Your task to perform on an android device: Turn off the flashlight Image 0: 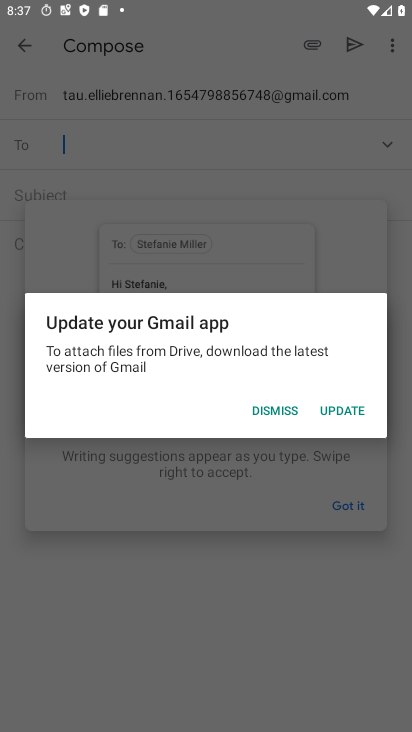
Step 0: press home button
Your task to perform on an android device: Turn off the flashlight Image 1: 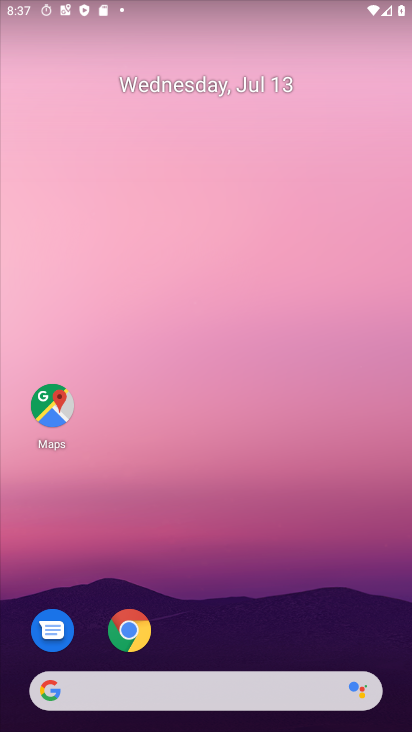
Step 1: drag from (167, 637) to (229, 241)
Your task to perform on an android device: Turn off the flashlight Image 2: 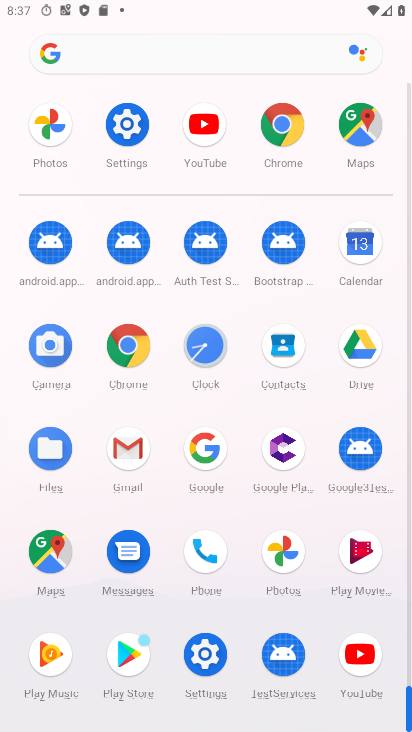
Step 2: click (201, 651)
Your task to perform on an android device: Turn off the flashlight Image 3: 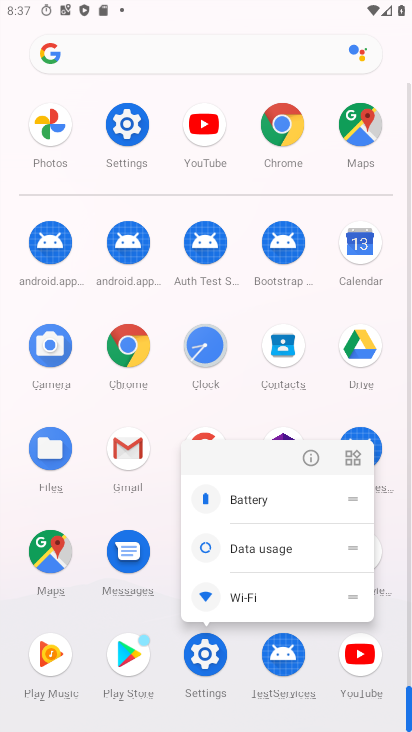
Step 3: click (307, 456)
Your task to perform on an android device: Turn off the flashlight Image 4: 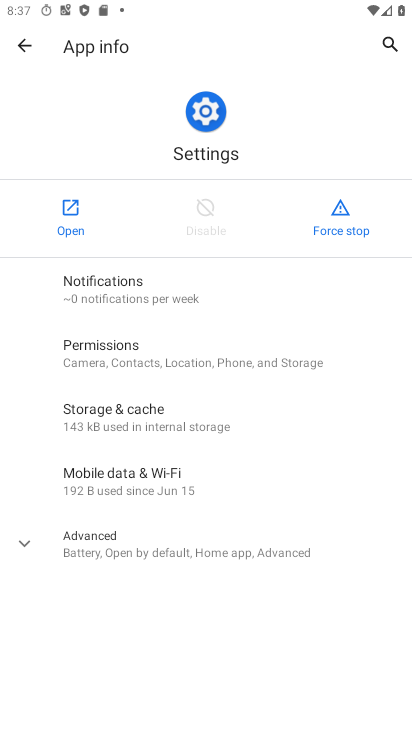
Step 4: click (61, 235)
Your task to perform on an android device: Turn off the flashlight Image 5: 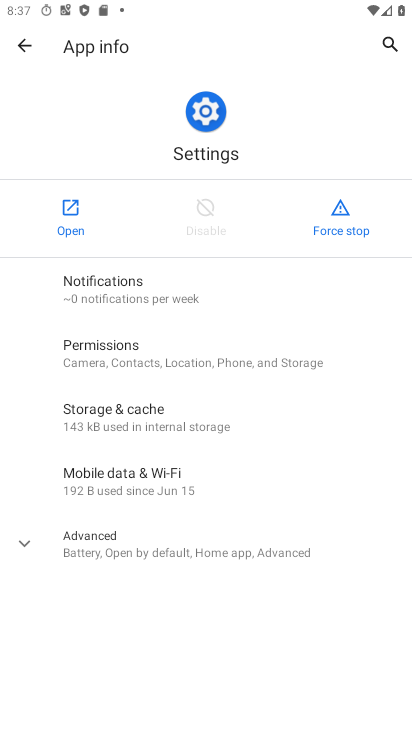
Step 5: click (61, 235)
Your task to perform on an android device: Turn off the flashlight Image 6: 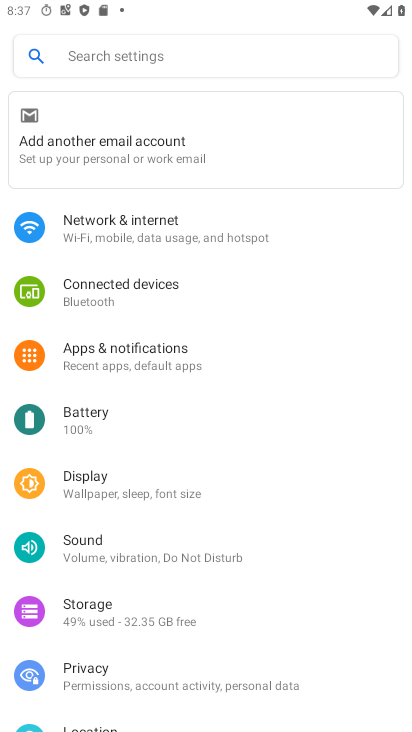
Step 6: click (196, 69)
Your task to perform on an android device: Turn off the flashlight Image 7: 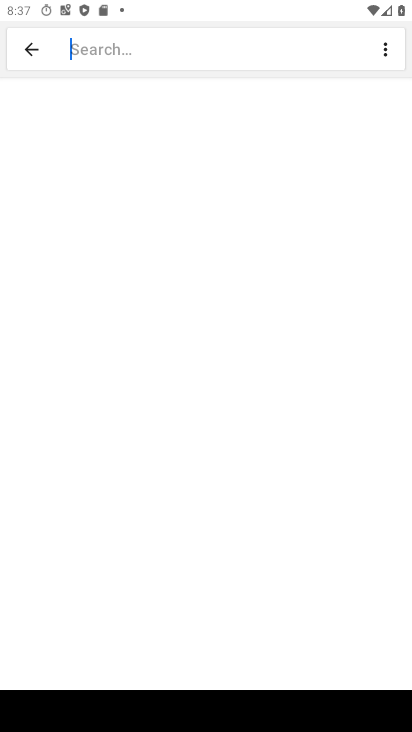
Step 7: type "flashlight"
Your task to perform on an android device: Turn off the flashlight Image 8: 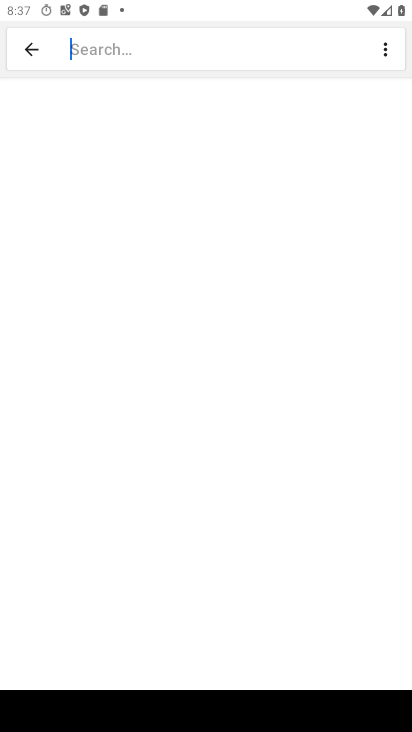
Step 8: click (201, 232)
Your task to perform on an android device: Turn off the flashlight Image 9: 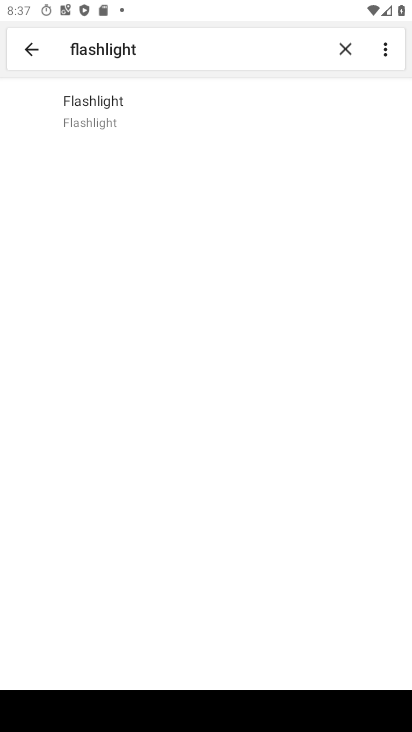
Step 9: click (136, 188)
Your task to perform on an android device: Turn off the flashlight Image 10: 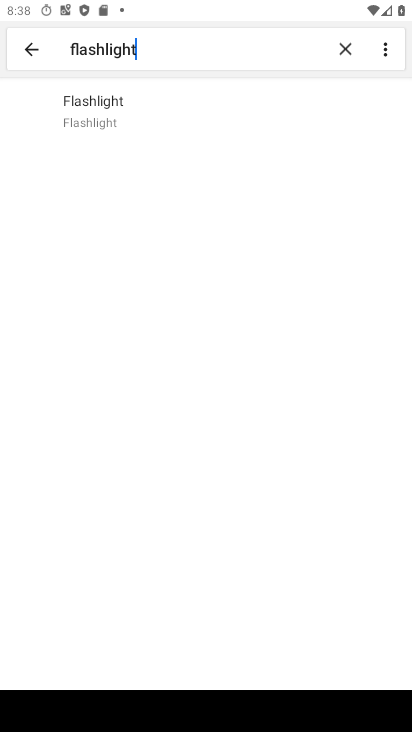
Step 10: click (216, 94)
Your task to perform on an android device: Turn off the flashlight Image 11: 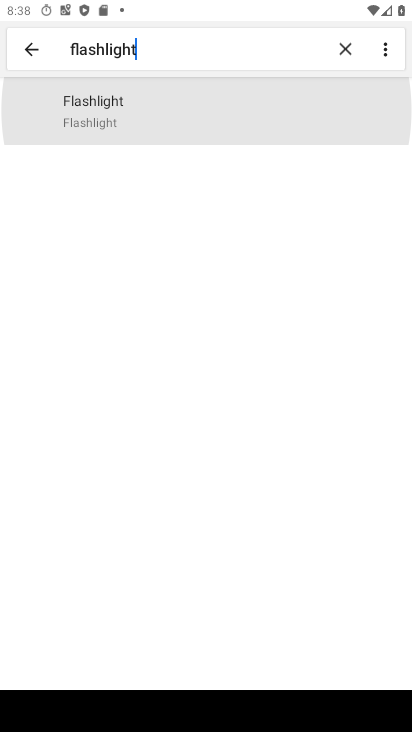
Step 11: click (179, 110)
Your task to perform on an android device: Turn off the flashlight Image 12: 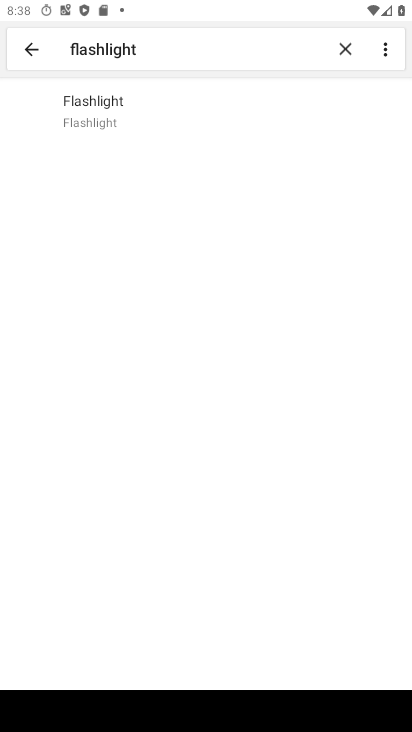
Step 12: task complete